Your task to perform on an android device: Open Chrome and go to the settings page Image 0: 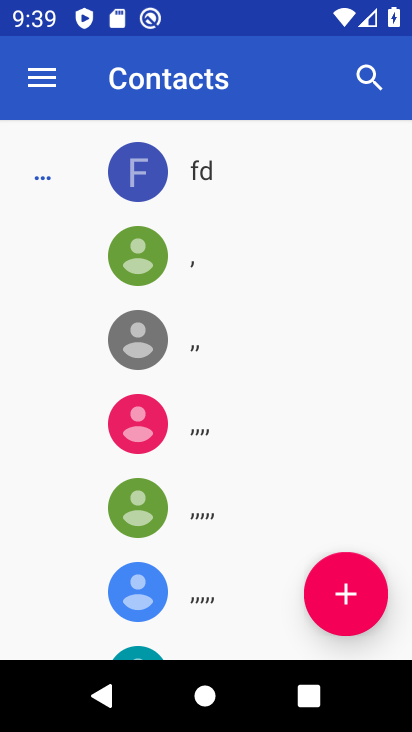
Step 0: press home button
Your task to perform on an android device: Open Chrome and go to the settings page Image 1: 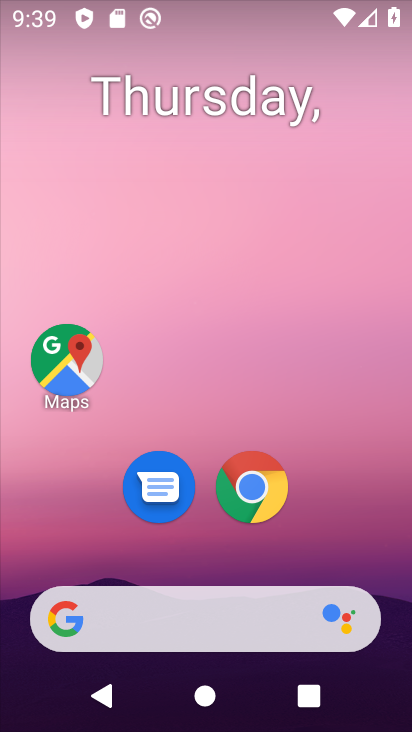
Step 1: click (262, 485)
Your task to perform on an android device: Open Chrome and go to the settings page Image 2: 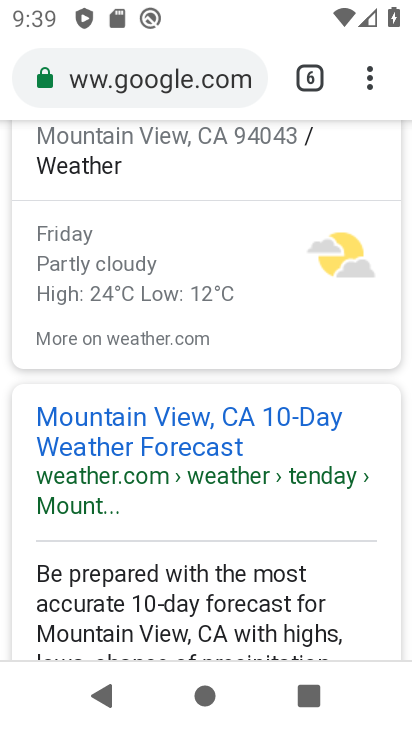
Step 2: click (370, 80)
Your task to perform on an android device: Open Chrome and go to the settings page Image 3: 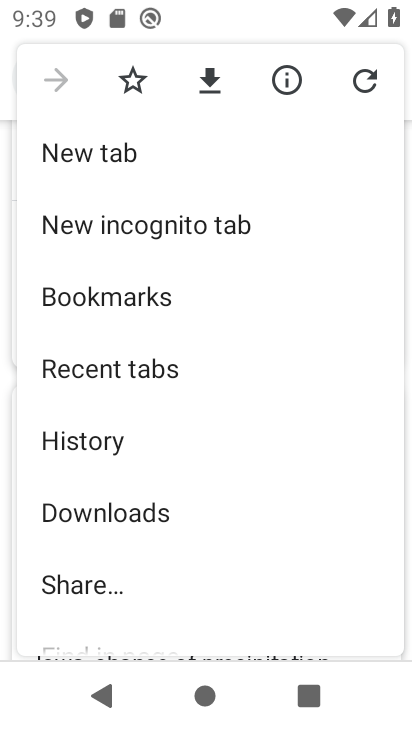
Step 3: drag from (225, 531) to (134, 94)
Your task to perform on an android device: Open Chrome and go to the settings page Image 4: 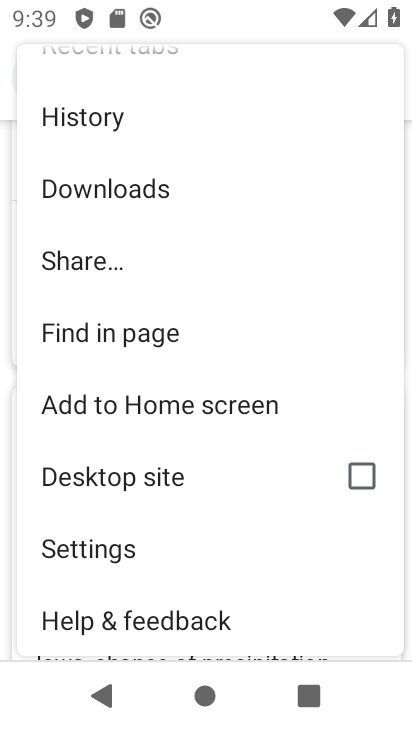
Step 4: click (100, 550)
Your task to perform on an android device: Open Chrome and go to the settings page Image 5: 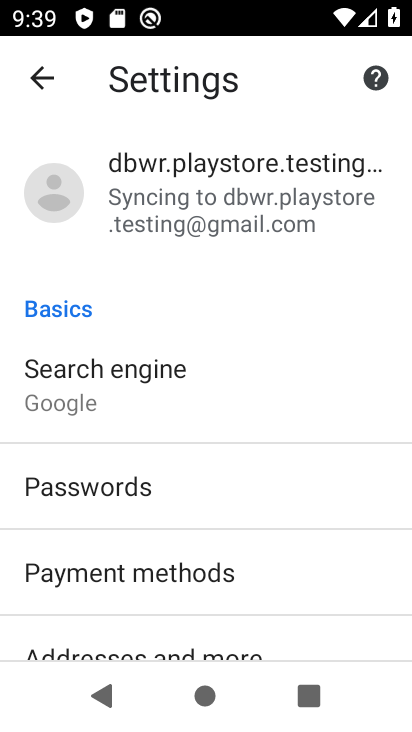
Step 5: task complete